Your task to perform on an android device: Clear all items from cart on costco. Search for apple airpods pro on costco, select the first entry, add it to the cart, then select checkout. Image 0: 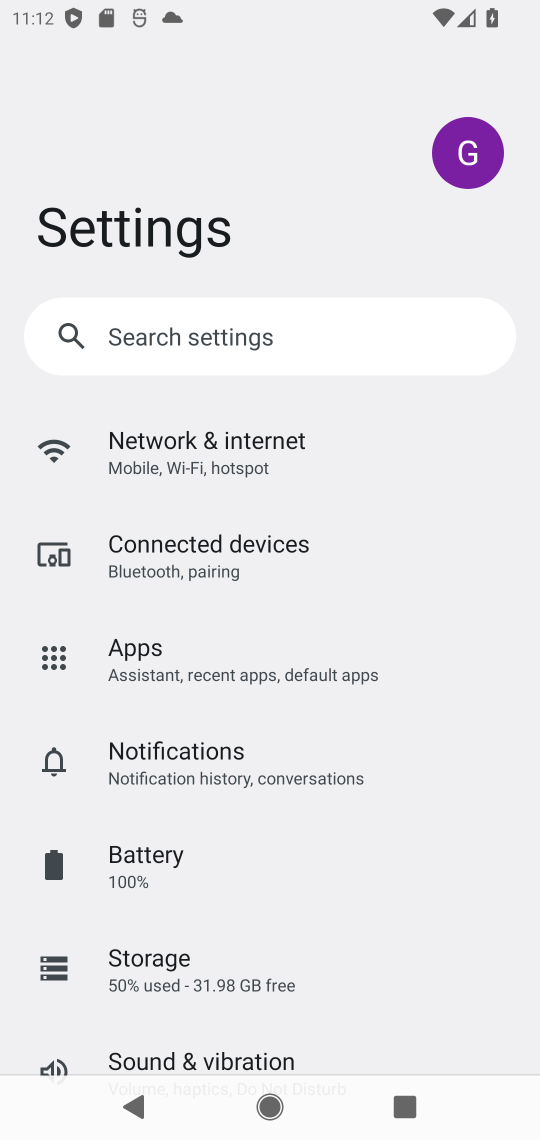
Step 0: press home button
Your task to perform on an android device: Clear all items from cart on costco. Search for apple airpods pro on costco, select the first entry, add it to the cart, then select checkout. Image 1: 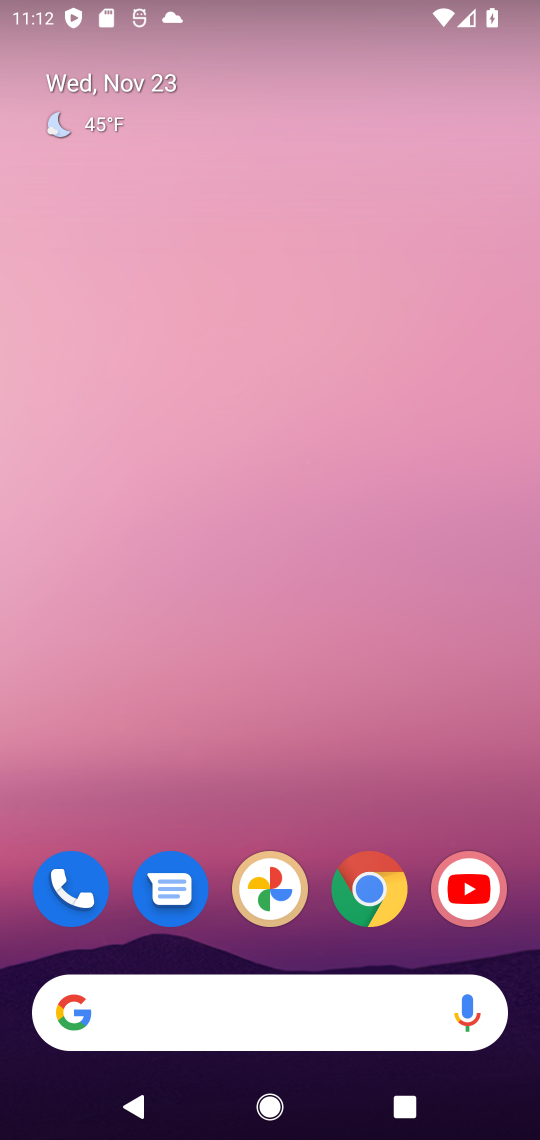
Step 1: click (368, 890)
Your task to perform on an android device: Clear all items from cart on costco. Search for apple airpods pro on costco, select the first entry, add it to the cart, then select checkout. Image 2: 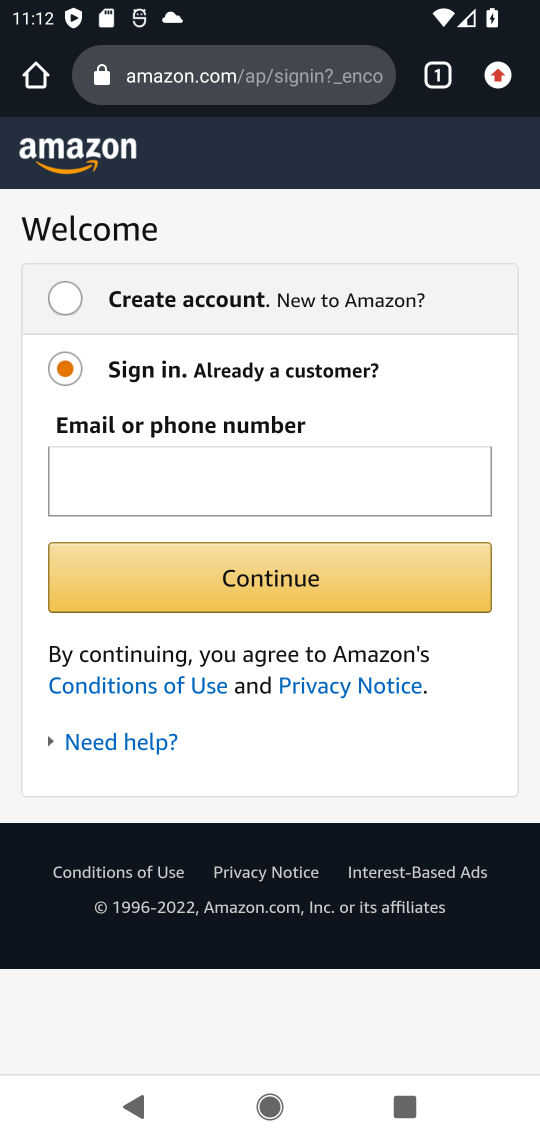
Step 2: click (237, 75)
Your task to perform on an android device: Clear all items from cart on costco. Search for apple airpods pro on costco, select the first entry, add it to the cart, then select checkout. Image 3: 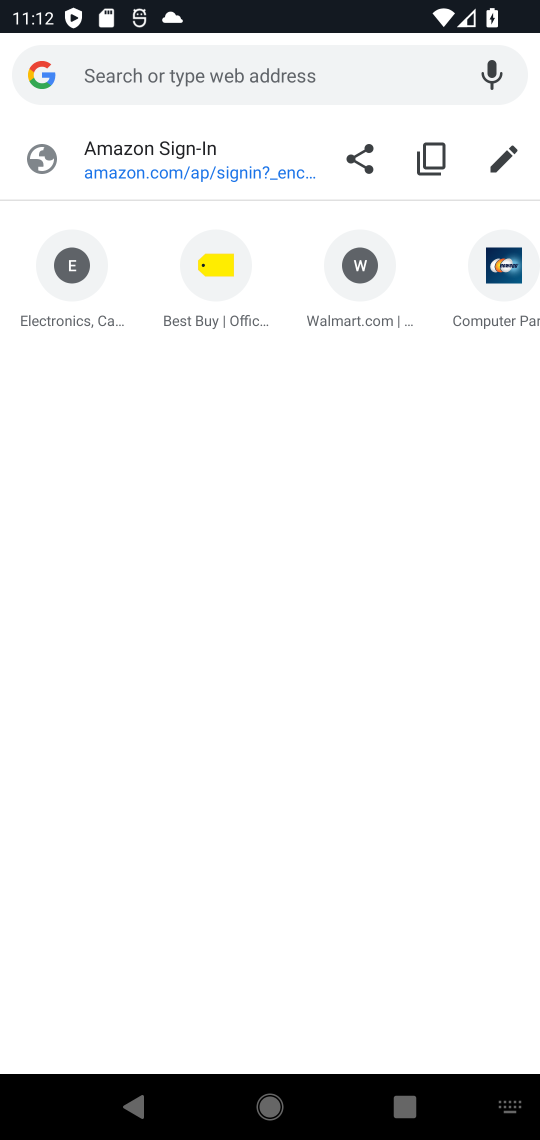
Step 3: type "costco.com"
Your task to perform on an android device: Clear all items from cart on costco. Search for apple airpods pro on costco, select the first entry, add it to the cart, then select checkout. Image 4: 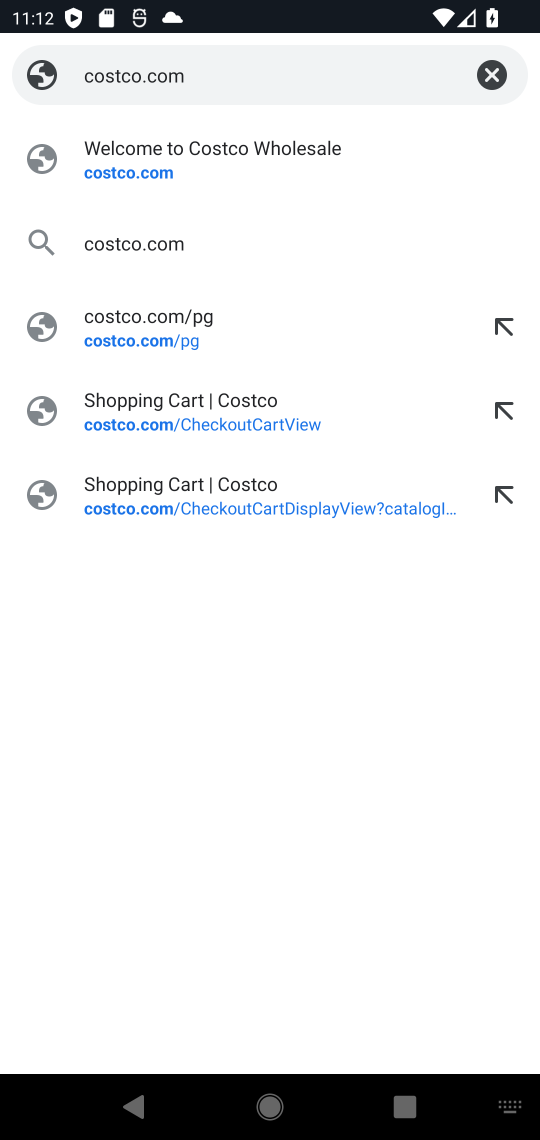
Step 4: click (116, 175)
Your task to perform on an android device: Clear all items from cart on costco. Search for apple airpods pro on costco, select the first entry, add it to the cart, then select checkout. Image 5: 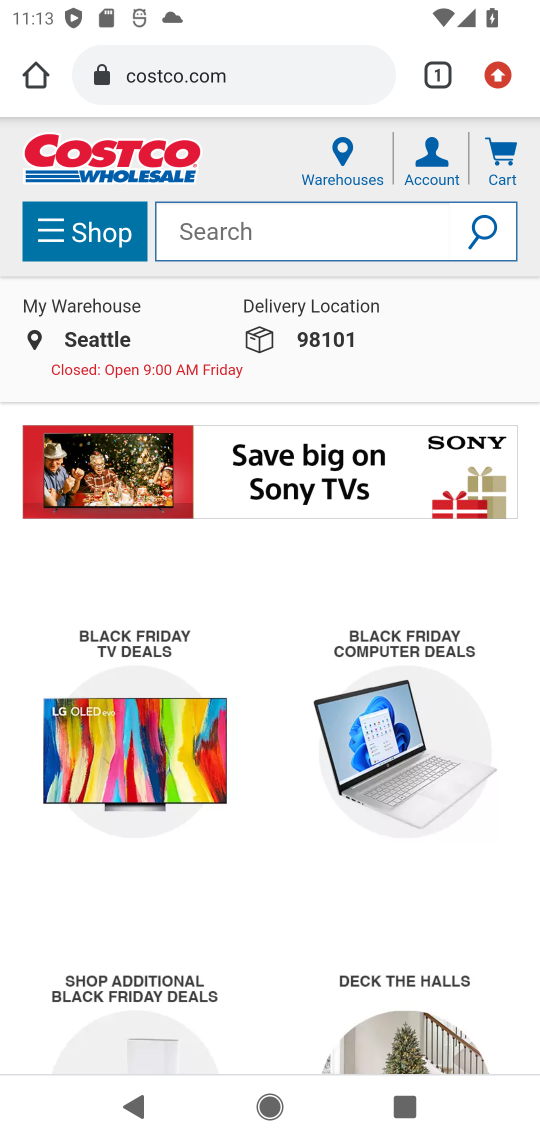
Step 5: click (499, 162)
Your task to perform on an android device: Clear all items from cart on costco. Search for apple airpods pro on costco, select the first entry, add it to the cart, then select checkout. Image 6: 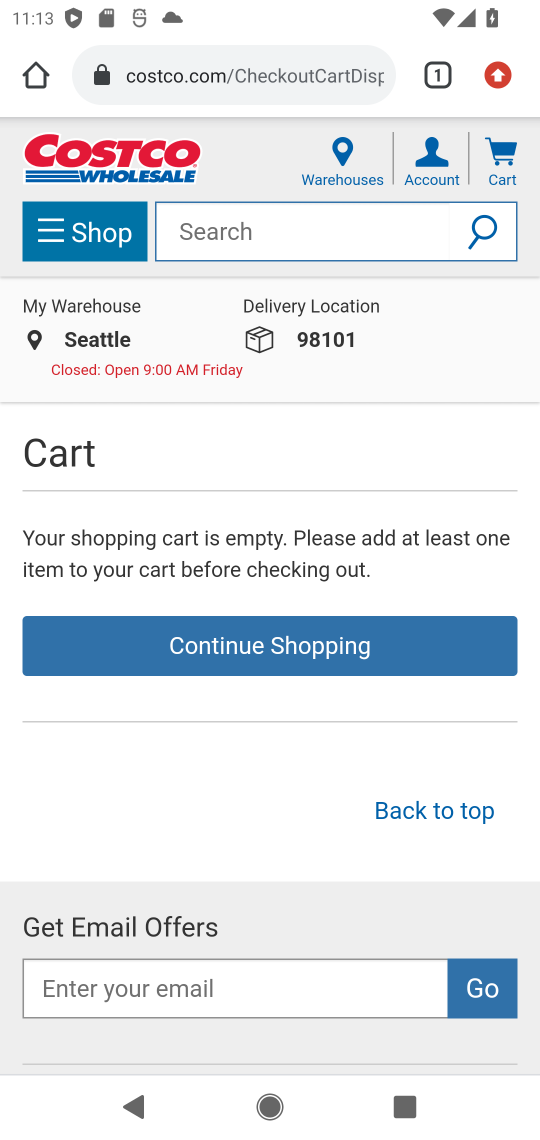
Step 6: click (228, 233)
Your task to perform on an android device: Clear all items from cart on costco. Search for apple airpods pro on costco, select the first entry, add it to the cart, then select checkout. Image 7: 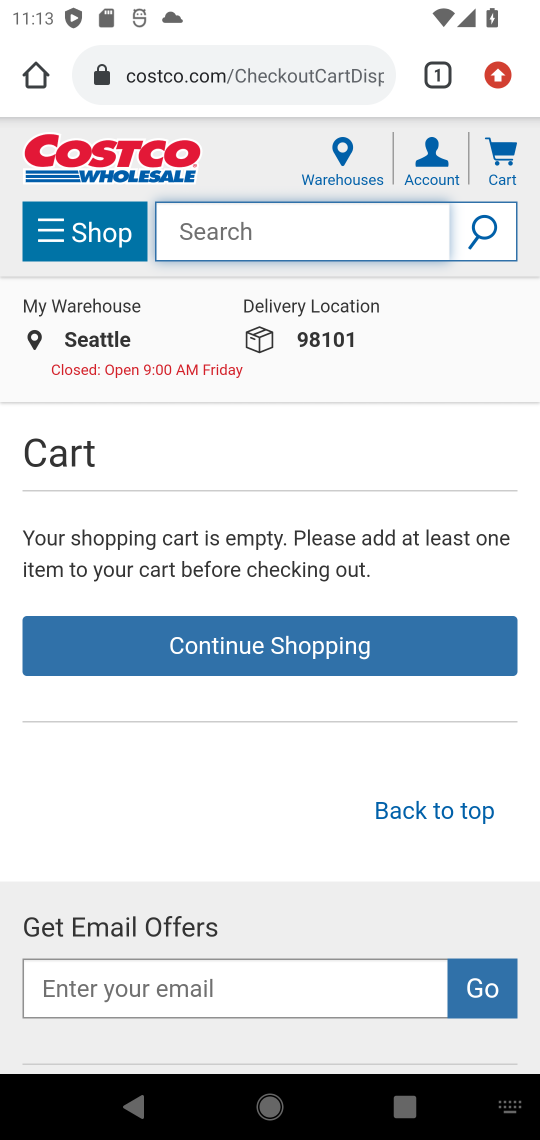
Step 7: type " apple airpods pro"
Your task to perform on an android device: Clear all items from cart on costco. Search for apple airpods pro on costco, select the first entry, add it to the cart, then select checkout. Image 8: 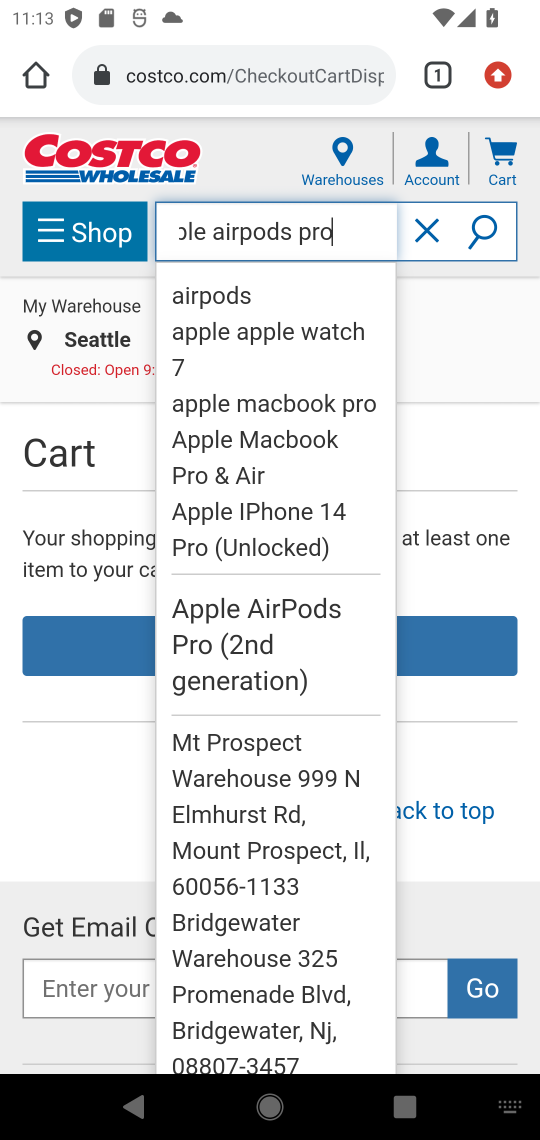
Step 8: click (493, 236)
Your task to perform on an android device: Clear all items from cart on costco. Search for apple airpods pro on costco, select the first entry, add it to the cart, then select checkout. Image 9: 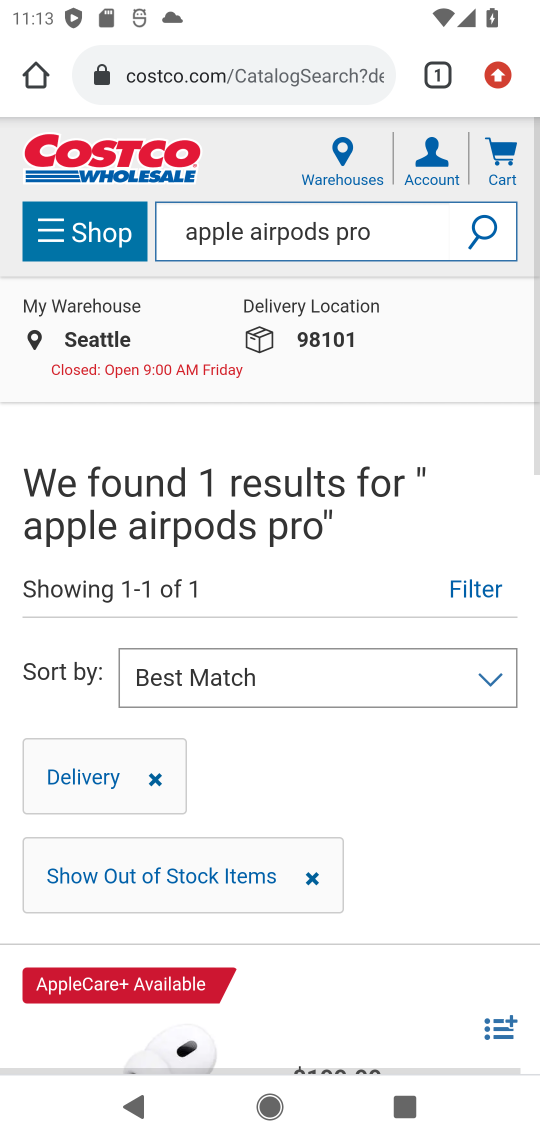
Step 9: drag from (270, 700) to (282, 333)
Your task to perform on an android device: Clear all items from cart on costco. Search for apple airpods pro on costco, select the first entry, add it to the cart, then select checkout. Image 10: 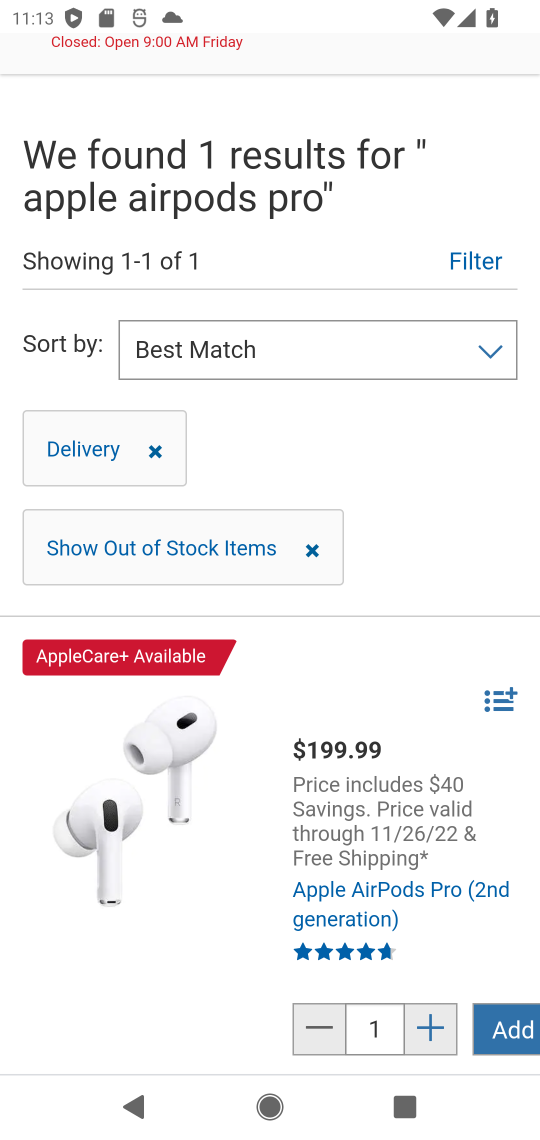
Step 10: click (505, 1027)
Your task to perform on an android device: Clear all items from cart on costco. Search for apple airpods pro on costco, select the first entry, add it to the cart, then select checkout. Image 11: 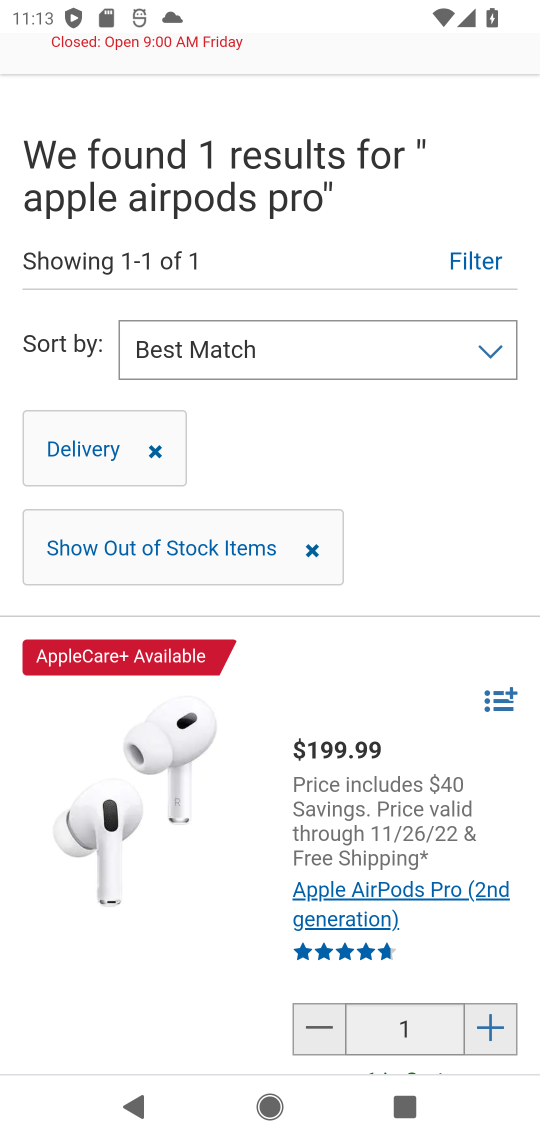
Step 11: drag from (333, 480) to (338, 853)
Your task to perform on an android device: Clear all items from cart on costco. Search for apple airpods pro on costco, select the first entry, add it to the cart, then select checkout. Image 12: 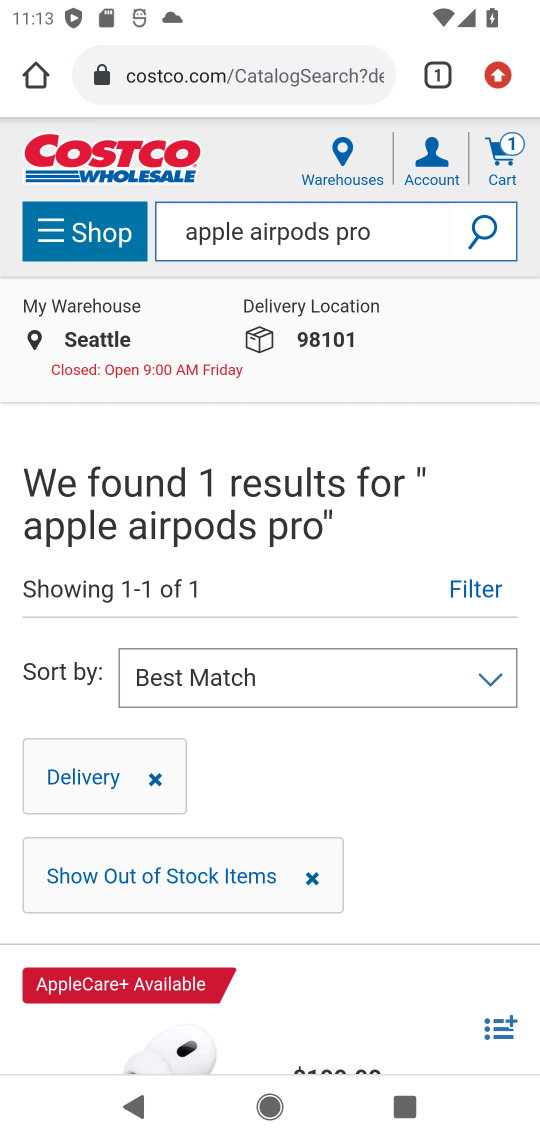
Step 12: click (506, 154)
Your task to perform on an android device: Clear all items from cart on costco. Search for apple airpods pro on costco, select the first entry, add it to the cart, then select checkout. Image 13: 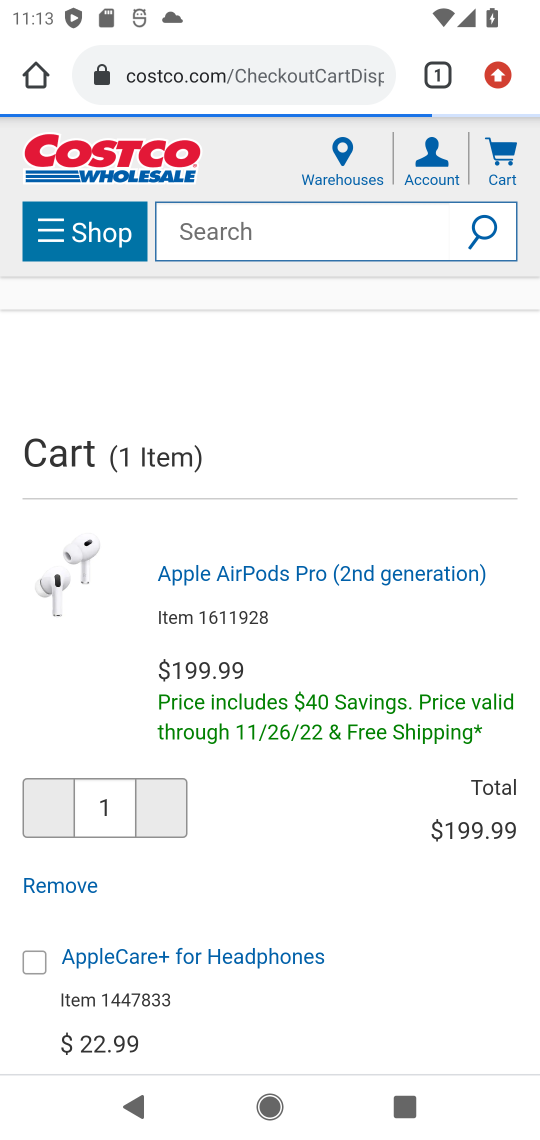
Step 13: drag from (264, 803) to (282, 461)
Your task to perform on an android device: Clear all items from cart on costco. Search for apple airpods pro on costco, select the first entry, add it to the cart, then select checkout. Image 14: 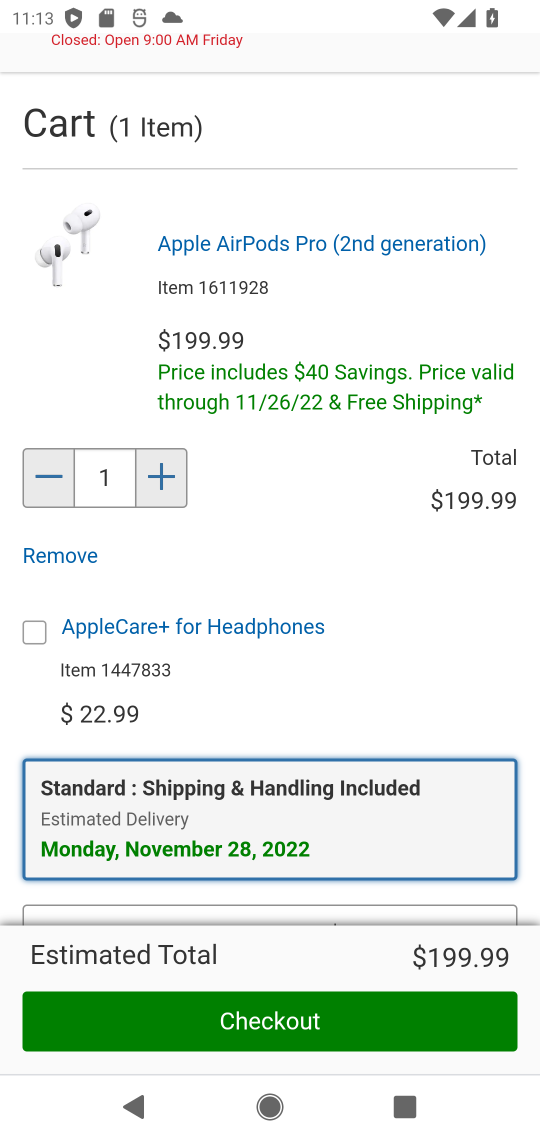
Step 14: click (259, 1019)
Your task to perform on an android device: Clear all items from cart on costco. Search for apple airpods pro on costco, select the first entry, add it to the cart, then select checkout. Image 15: 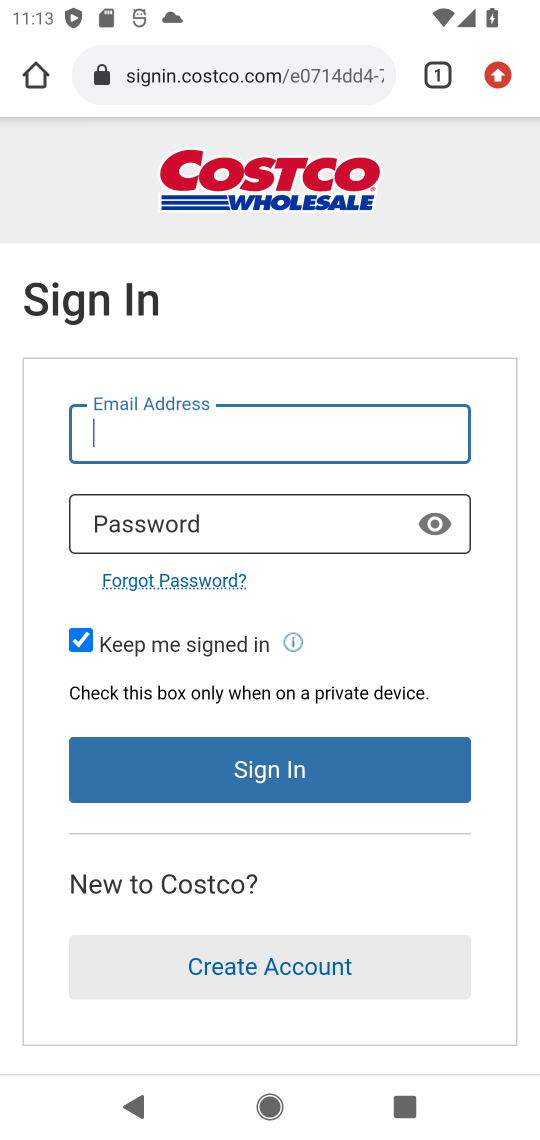
Step 15: task complete